Your task to perform on an android device: create a new album in the google photos Image 0: 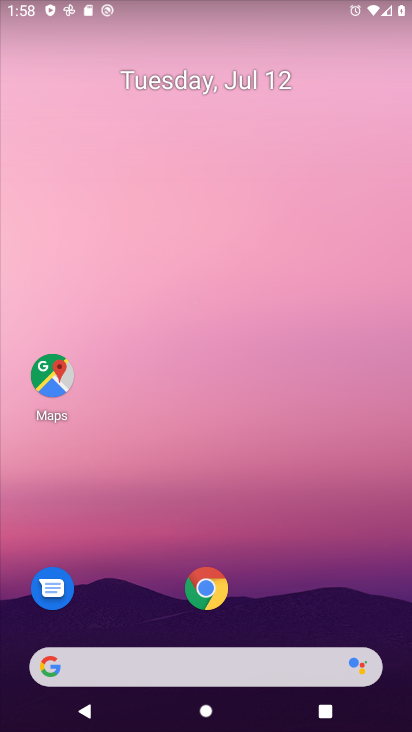
Step 0: drag from (190, 639) to (359, 146)
Your task to perform on an android device: create a new album in the google photos Image 1: 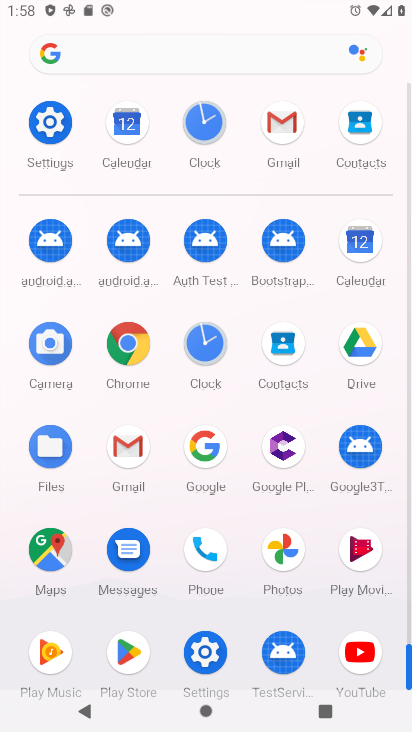
Step 1: click (285, 543)
Your task to perform on an android device: create a new album in the google photos Image 2: 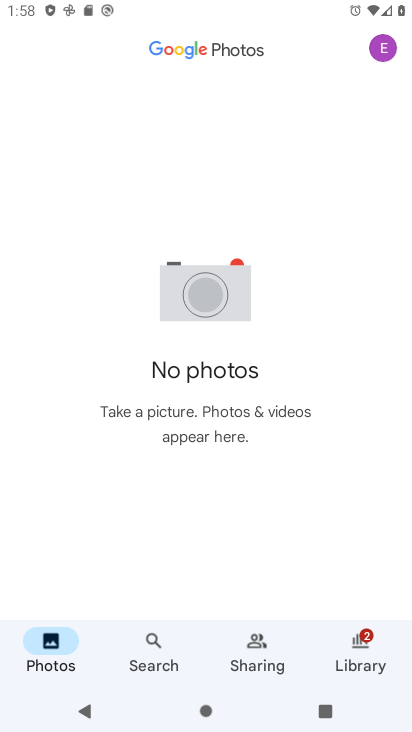
Step 2: click (355, 652)
Your task to perform on an android device: create a new album in the google photos Image 3: 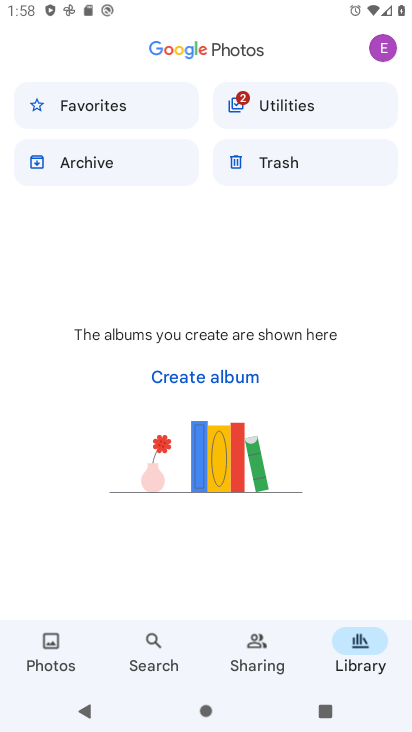
Step 3: click (214, 368)
Your task to perform on an android device: create a new album in the google photos Image 4: 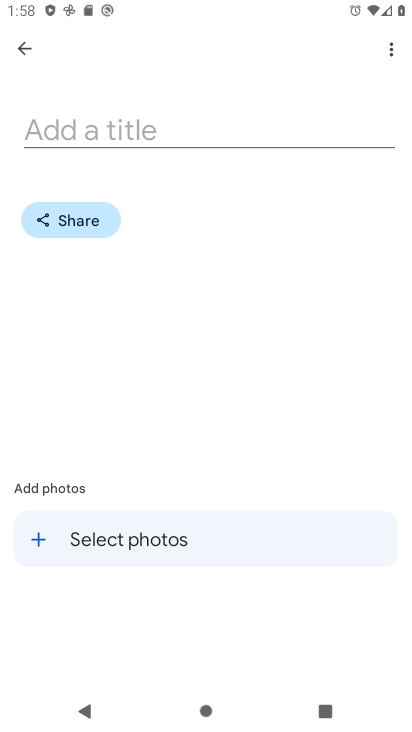
Step 4: task complete